Your task to perform on an android device: open a new tab in the chrome app Image 0: 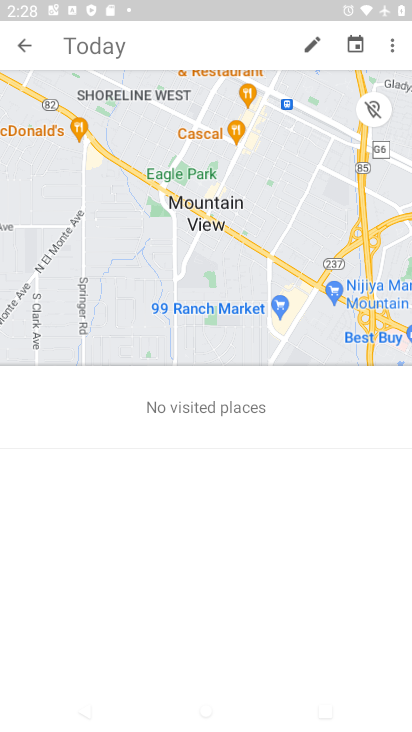
Step 0: press home button
Your task to perform on an android device: open a new tab in the chrome app Image 1: 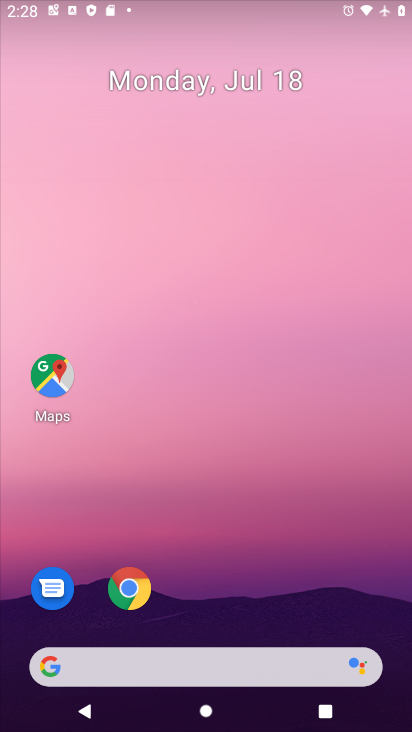
Step 1: drag from (170, 635) to (239, 173)
Your task to perform on an android device: open a new tab in the chrome app Image 2: 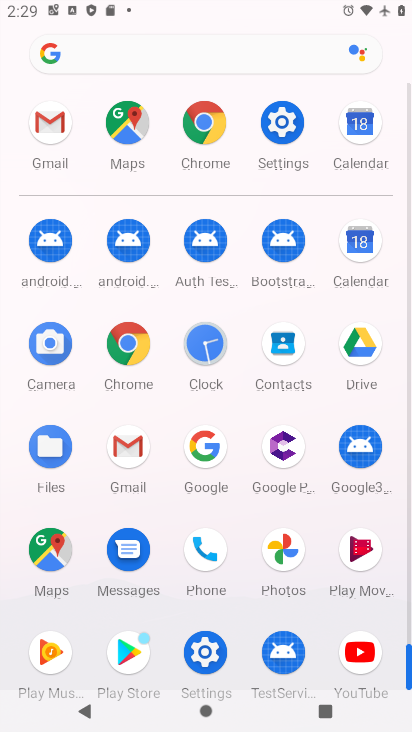
Step 2: click (128, 365)
Your task to perform on an android device: open a new tab in the chrome app Image 3: 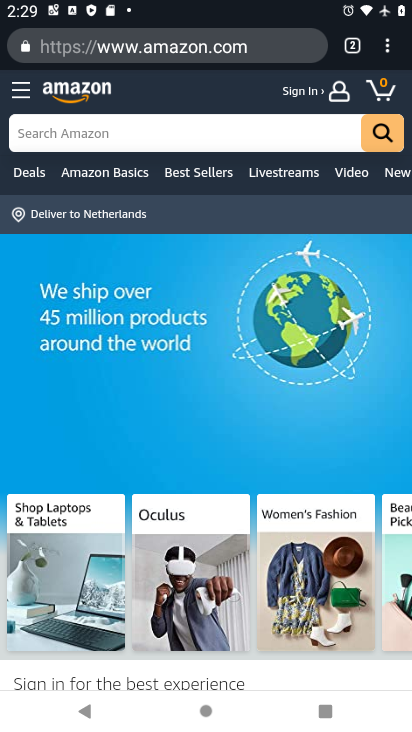
Step 3: drag from (355, 86) to (341, 267)
Your task to perform on an android device: open a new tab in the chrome app Image 4: 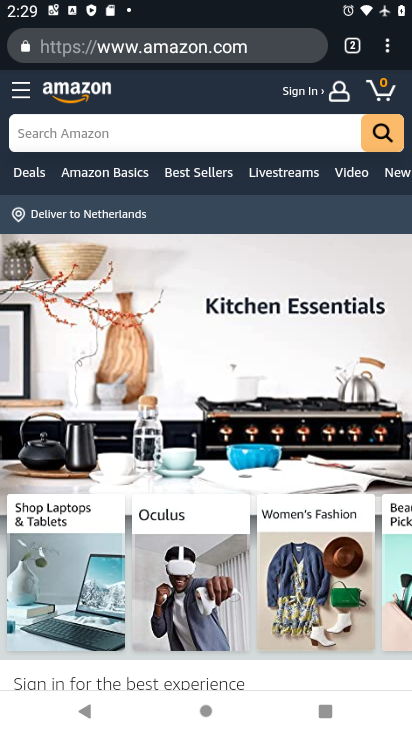
Step 4: drag from (361, 54) to (340, 255)
Your task to perform on an android device: open a new tab in the chrome app Image 5: 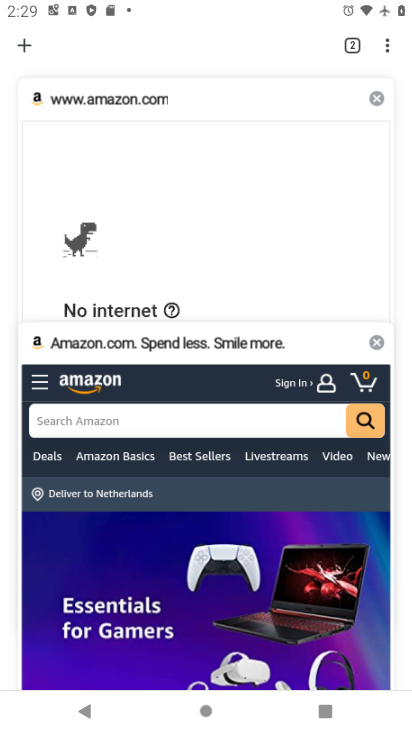
Step 5: click (32, 46)
Your task to perform on an android device: open a new tab in the chrome app Image 6: 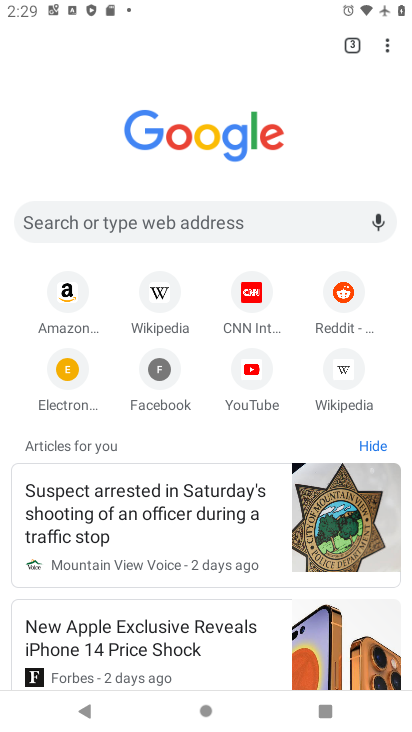
Step 6: task complete